Your task to perform on an android device: Search for seafood restaurants on Google Maps Image 0: 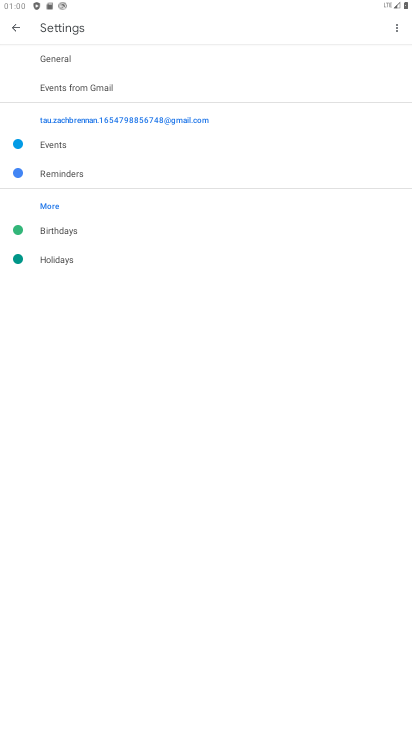
Step 0: press home button
Your task to perform on an android device: Search for seafood restaurants on Google Maps Image 1: 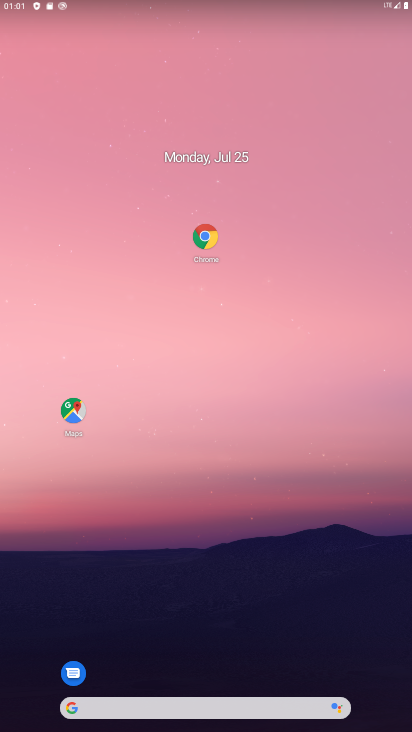
Step 1: drag from (236, 700) to (245, 18)
Your task to perform on an android device: Search for seafood restaurants on Google Maps Image 2: 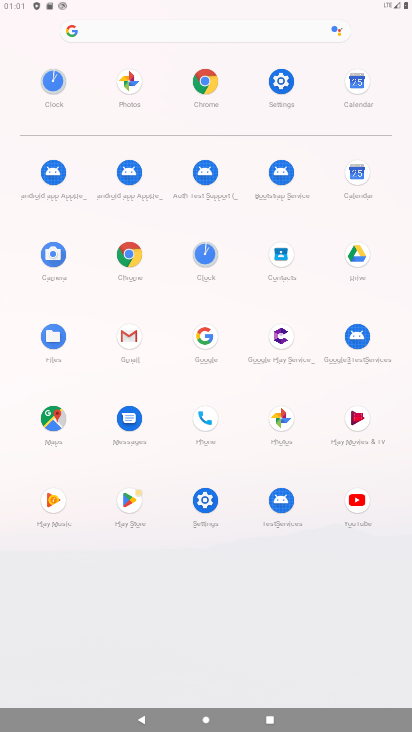
Step 2: click (50, 422)
Your task to perform on an android device: Search for seafood restaurants on Google Maps Image 3: 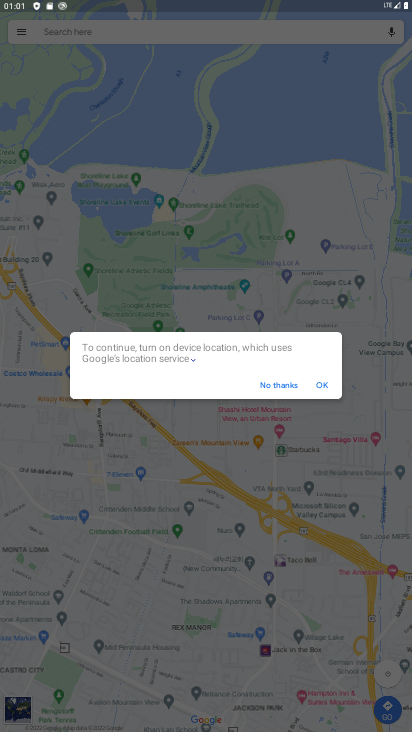
Step 3: click (270, 387)
Your task to perform on an android device: Search for seafood restaurants on Google Maps Image 4: 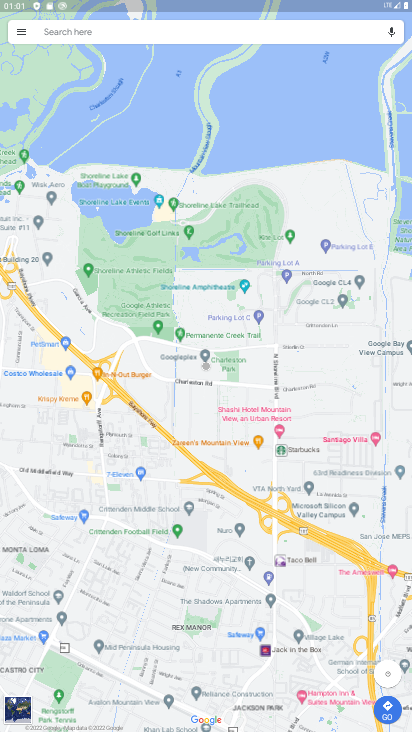
Step 4: click (258, 29)
Your task to perform on an android device: Search for seafood restaurants on Google Maps Image 5: 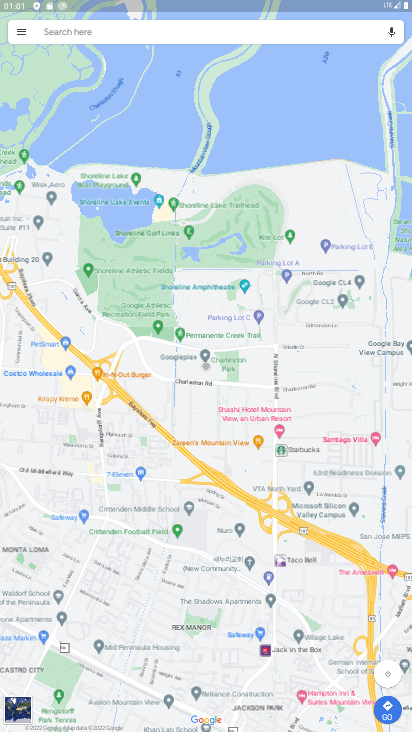
Step 5: click (258, 29)
Your task to perform on an android device: Search for seafood restaurants on Google Maps Image 6: 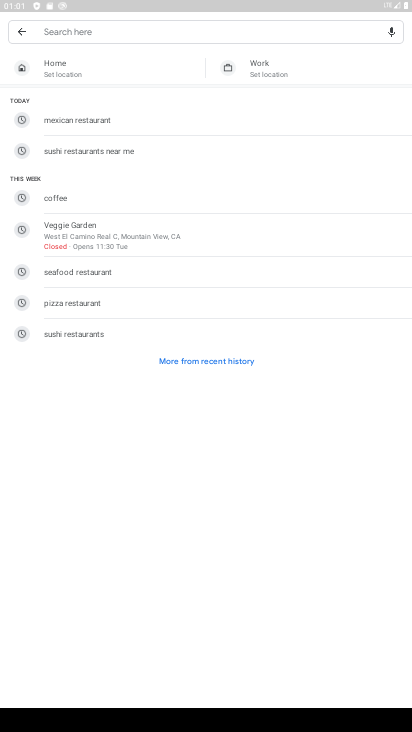
Step 6: click (76, 273)
Your task to perform on an android device: Search for seafood restaurants on Google Maps Image 7: 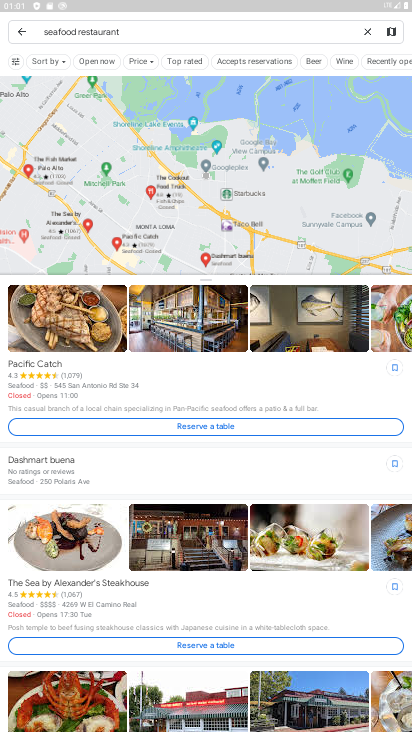
Step 7: task complete